Your task to perform on an android device: find photos in the google photos app Image 0: 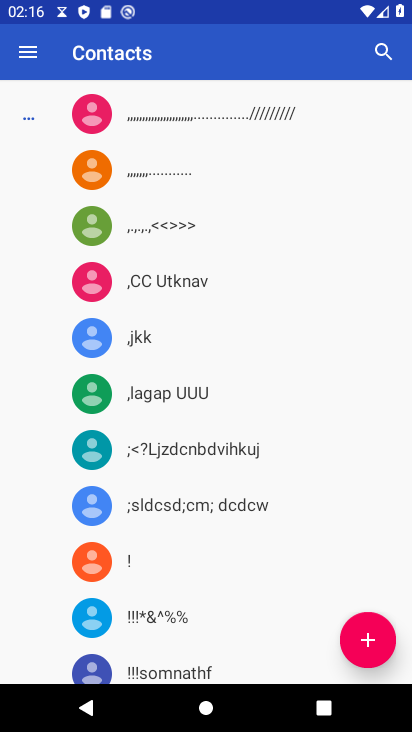
Step 0: press home button
Your task to perform on an android device: find photos in the google photos app Image 1: 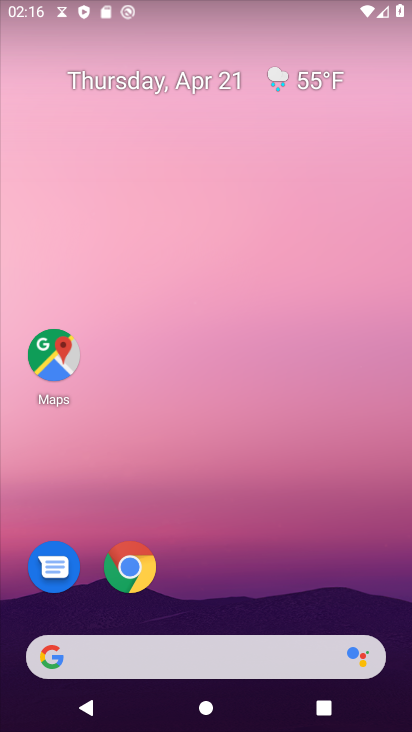
Step 1: drag from (181, 650) to (285, 178)
Your task to perform on an android device: find photos in the google photos app Image 2: 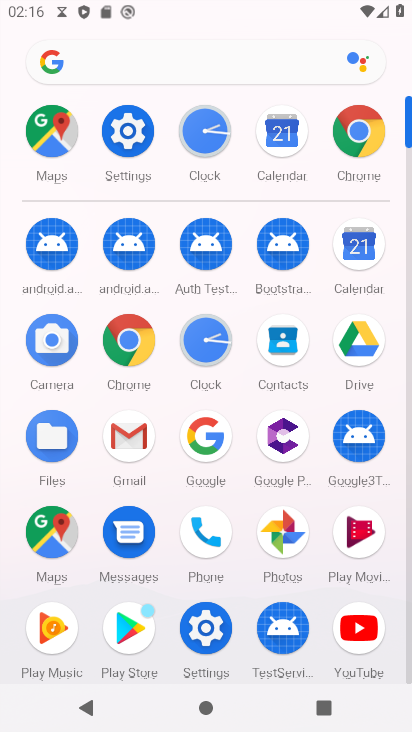
Step 2: click (286, 529)
Your task to perform on an android device: find photos in the google photos app Image 3: 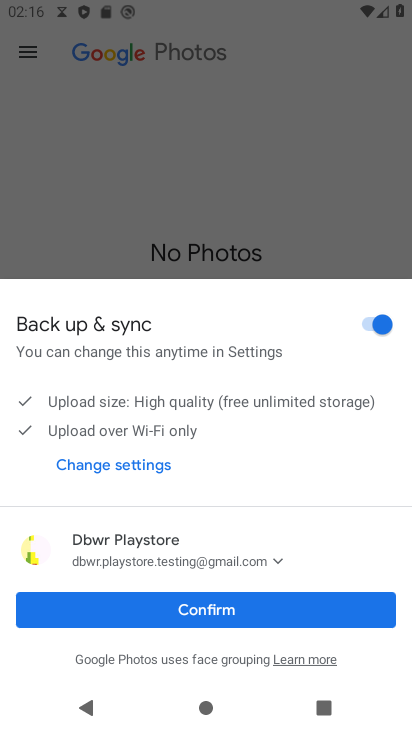
Step 3: click (186, 608)
Your task to perform on an android device: find photos in the google photos app Image 4: 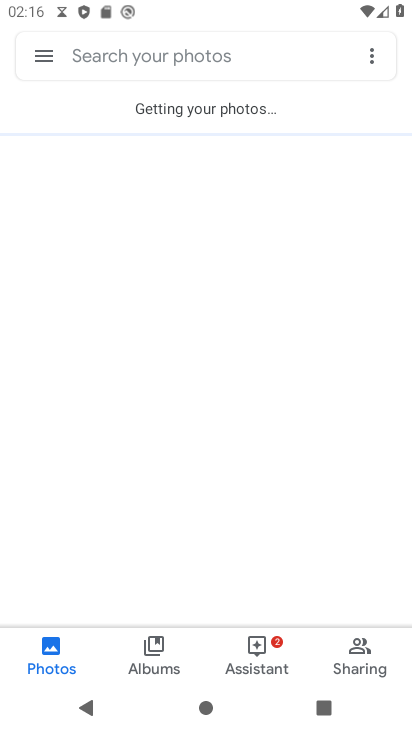
Step 4: click (52, 663)
Your task to perform on an android device: find photos in the google photos app Image 5: 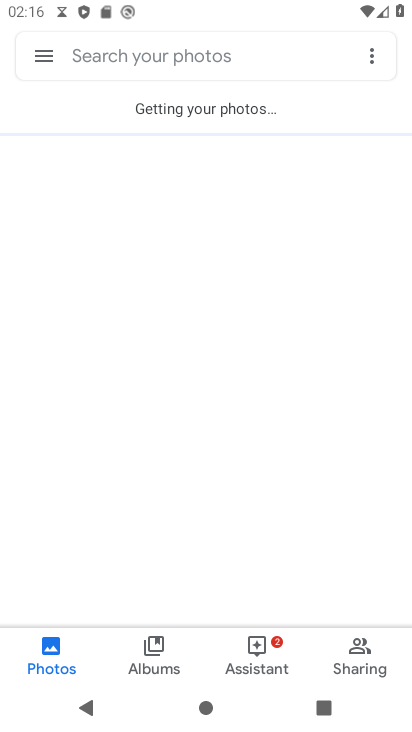
Step 5: task complete